Your task to perform on an android device: clear history in the chrome app Image 0: 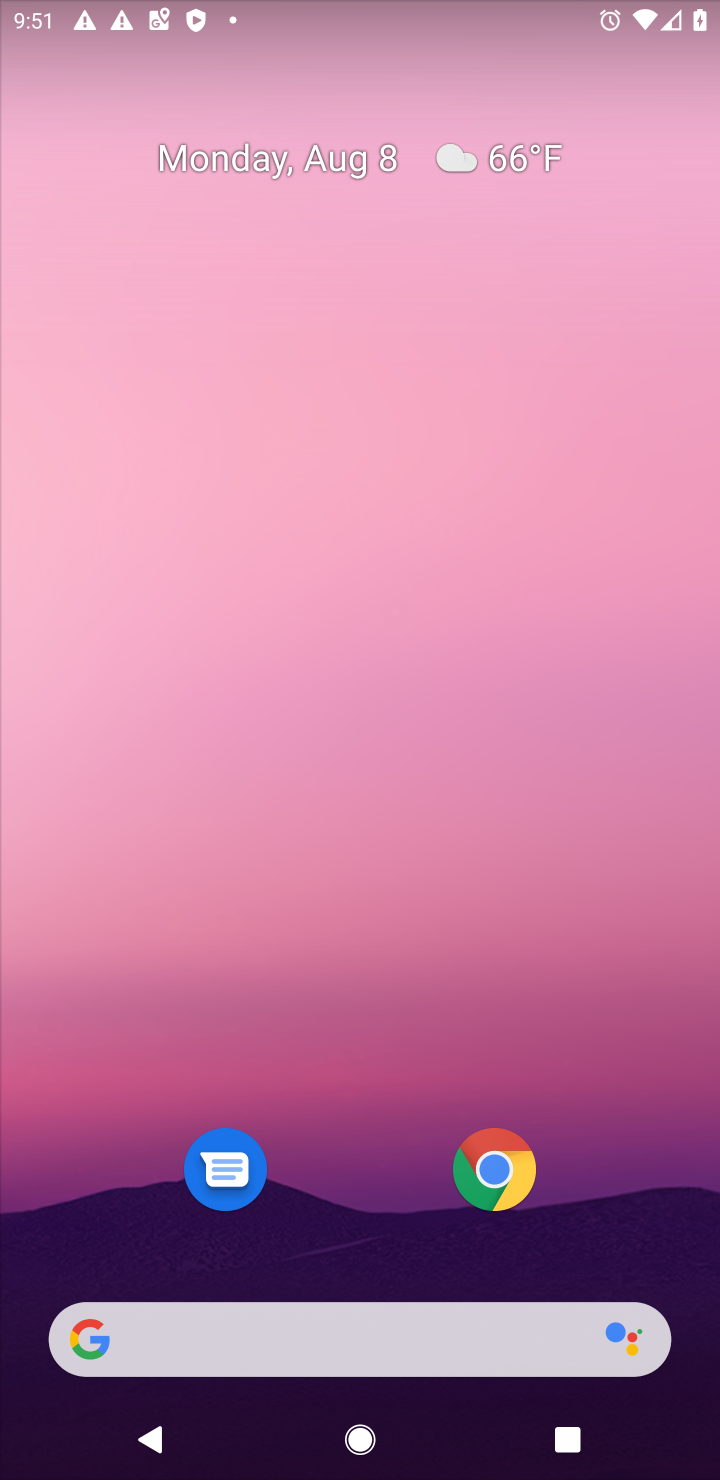
Step 0: click (504, 1203)
Your task to perform on an android device: clear history in the chrome app Image 1: 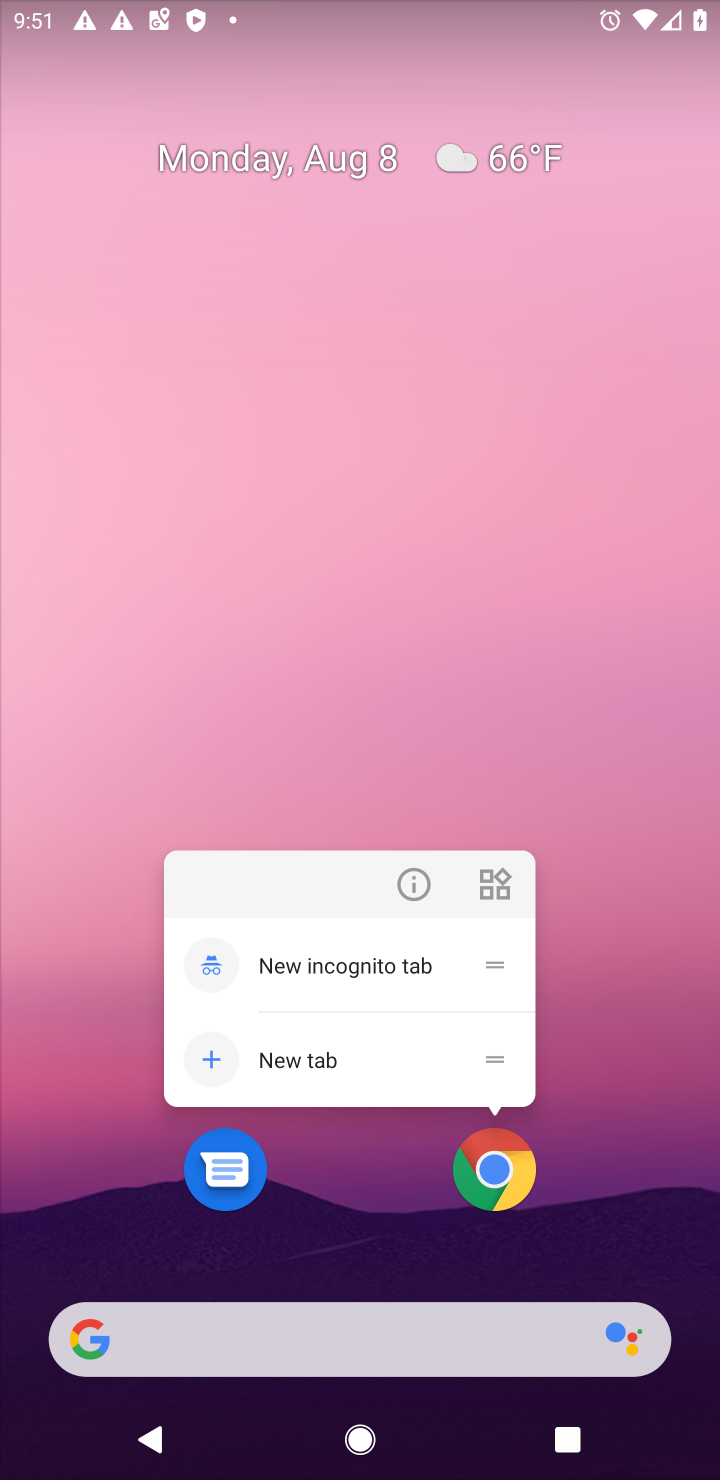
Step 1: click (525, 1168)
Your task to perform on an android device: clear history in the chrome app Image 2: 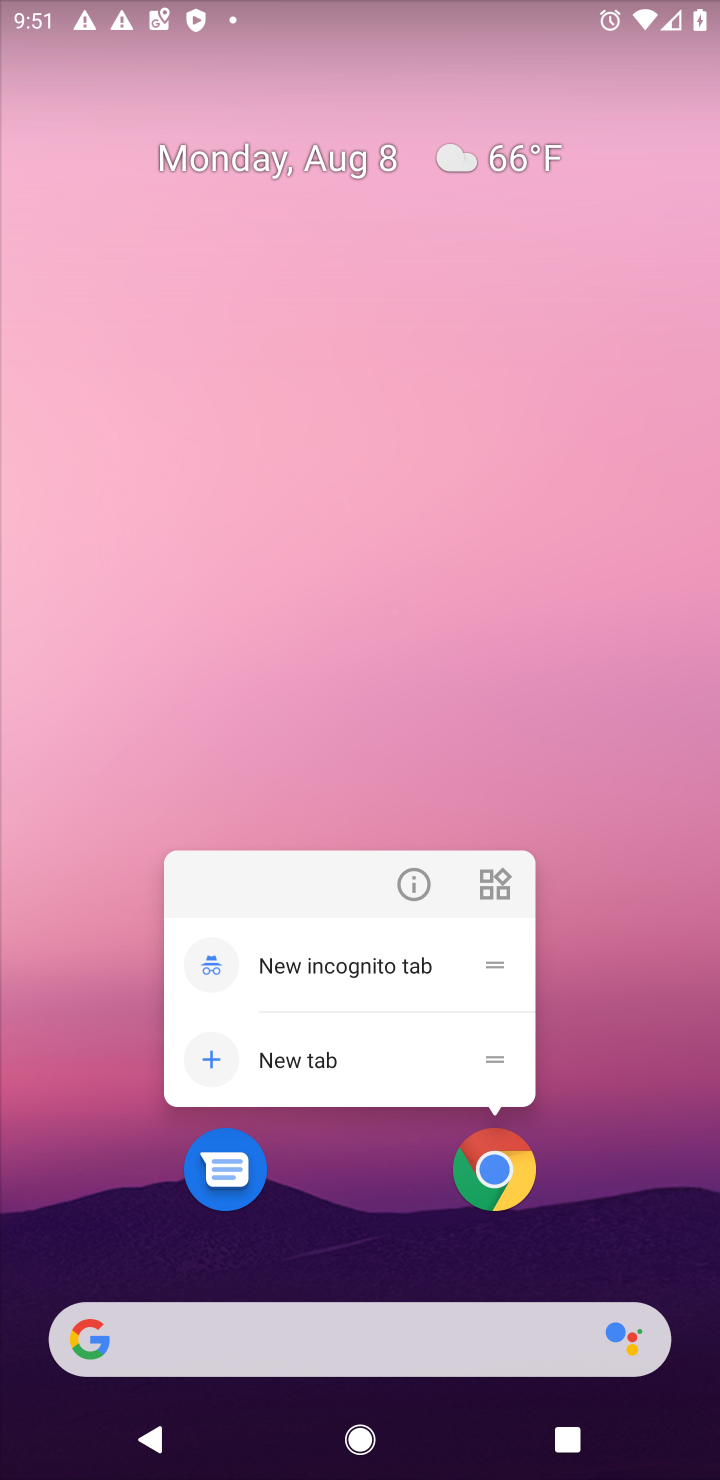
Step 2: click (491, 1160)
Your task to perform on an android device: clear history in the chrome app Image 3: 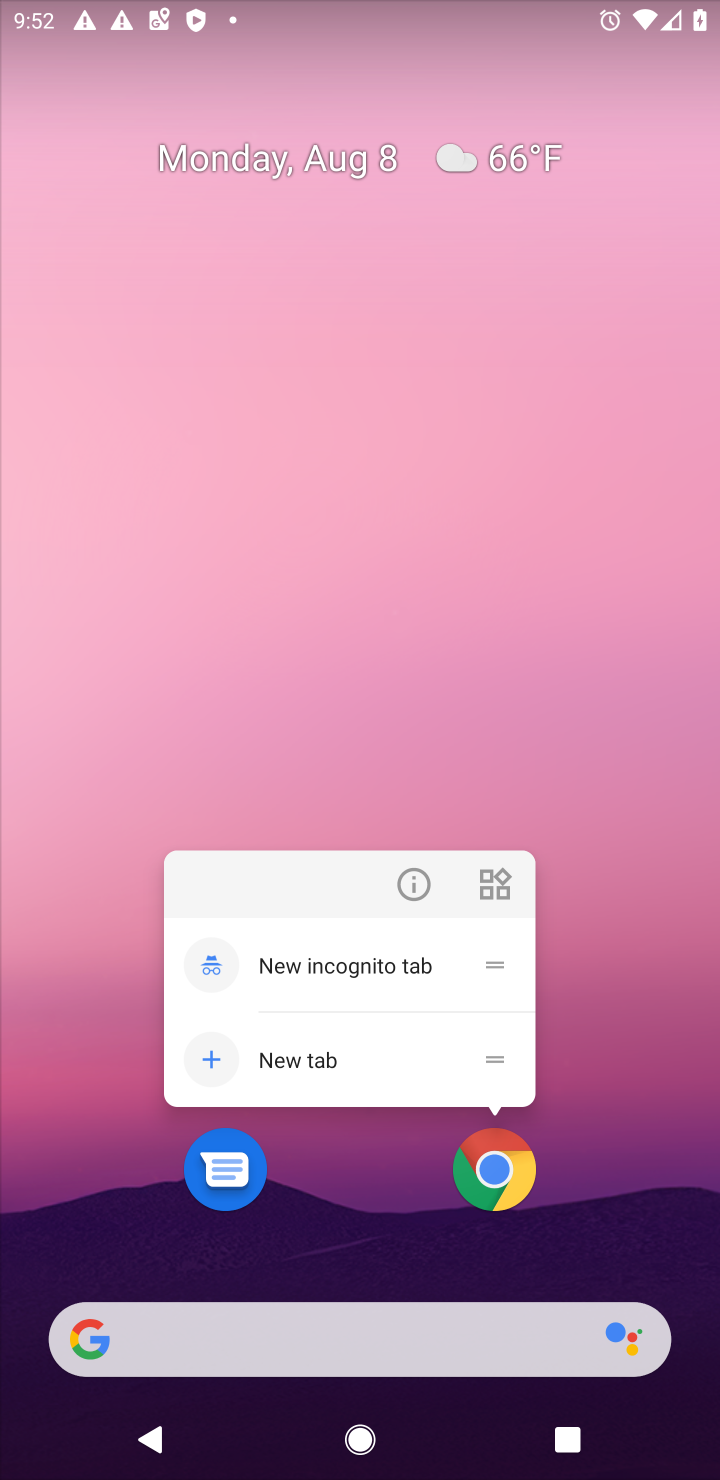
Step 3: click (491, 1160)
Your task to perform on an android device: clear history in the chrome app Image 4: 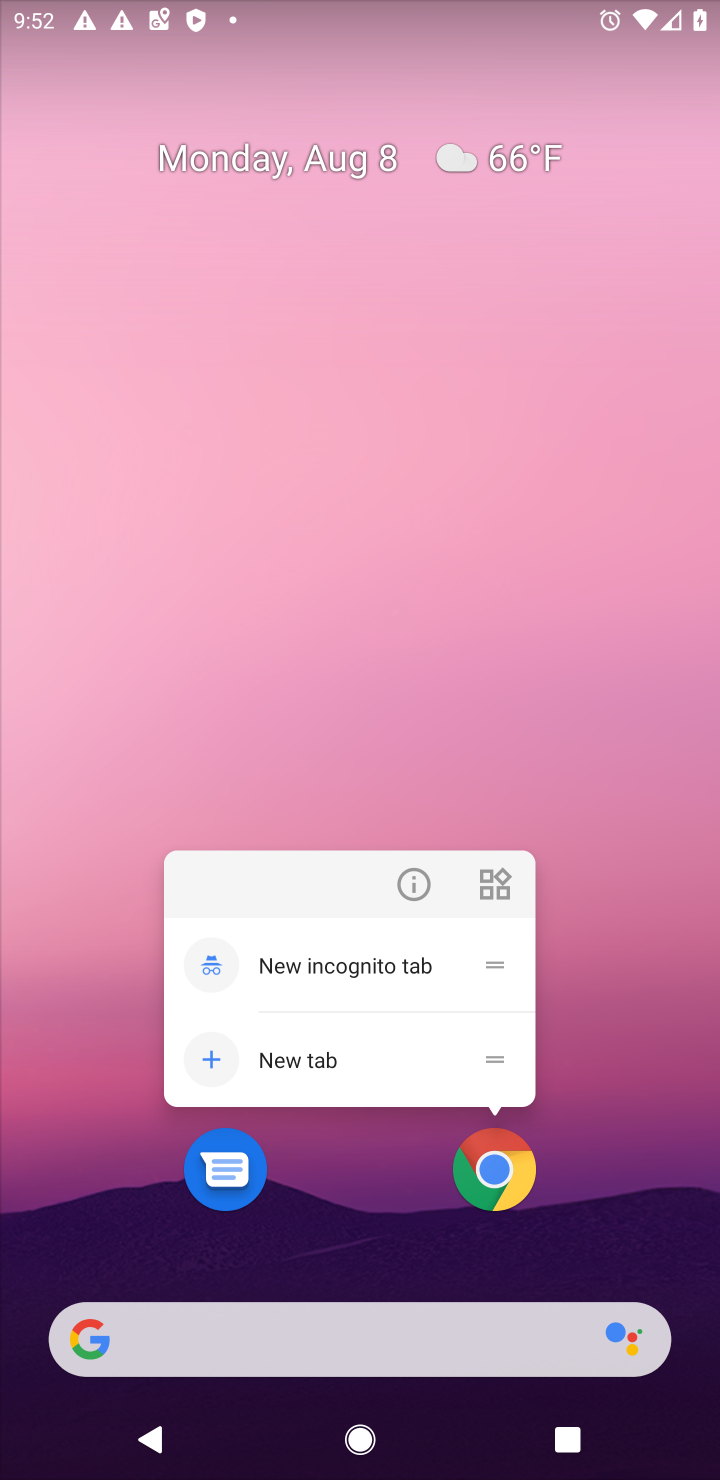
Step 4: click (490, 1186)
Your task to perform on an android device: clear history in the chrome app Image 5: 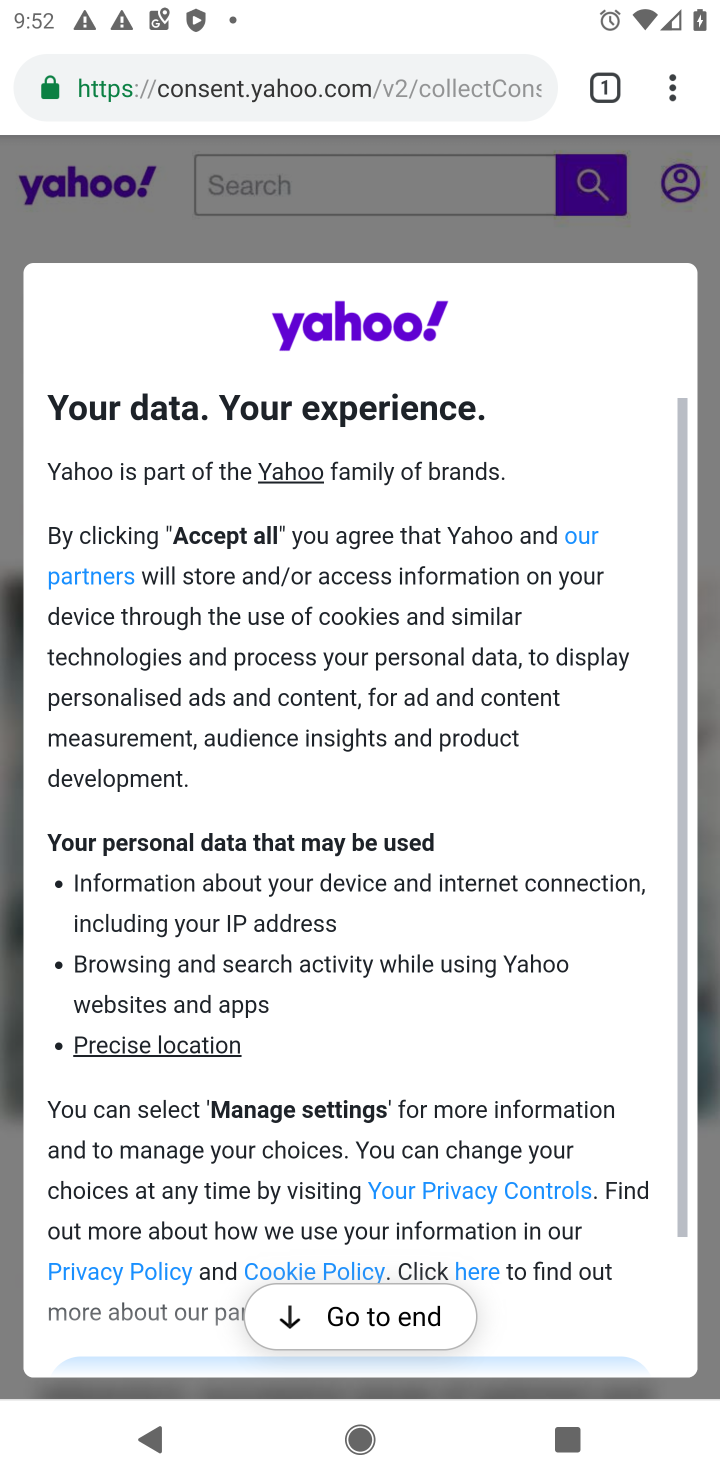
Step 5: task complete